Your task to perform on an android device: toggle sleep mode Image 0: 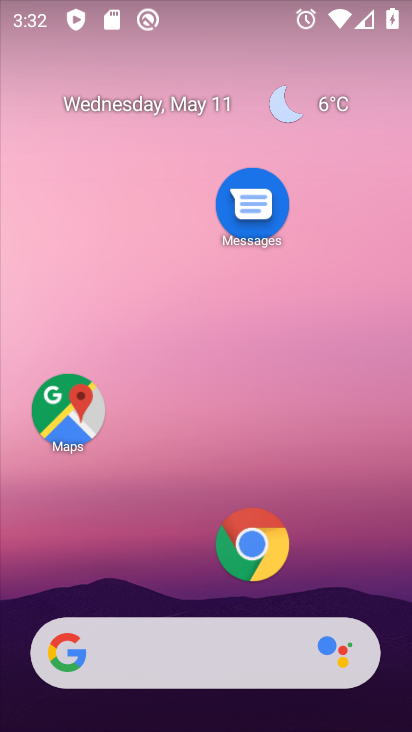
Step 0: drag from (185, 460) to (264, 47)
Your task to perform on an android device: toggle sleep mode Image 1: 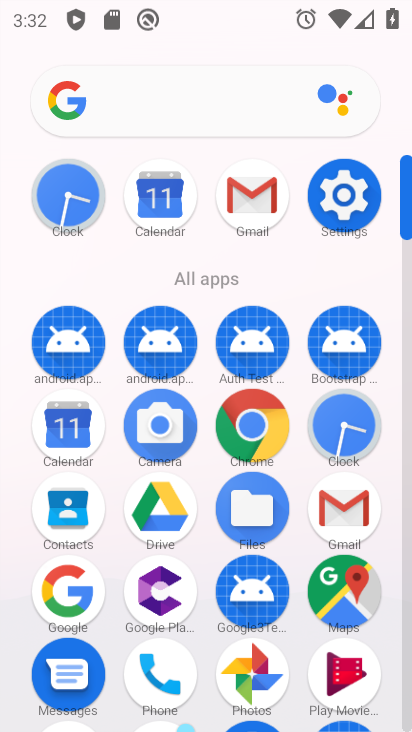
Step 1: click (345, 192)
Your task to perform on an android device: toggle sleep mode Image 2: 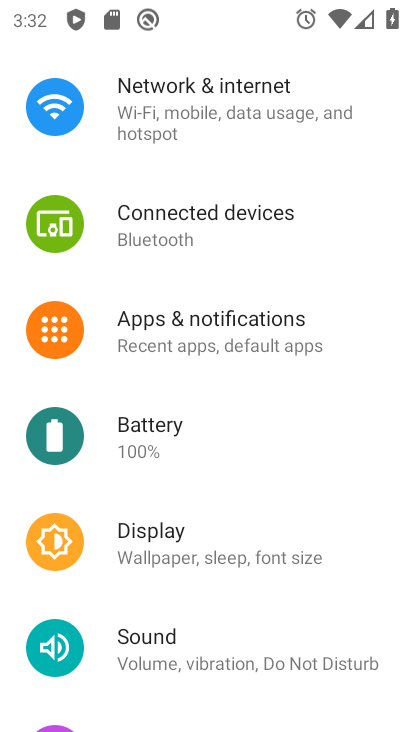
Step 2: drag from (201, 90) to (171, 631)
Your task to perform on an android device: toggle sleep mode Image 3: 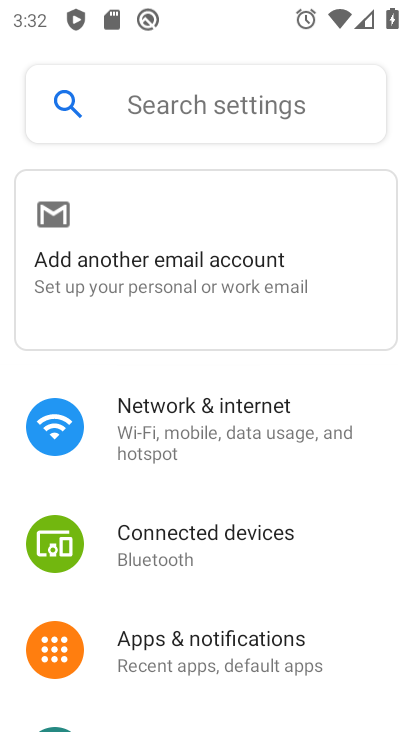
Step 3: click (170, 103)
Your task to perform on an android device: toggle sleep mode Image 4: 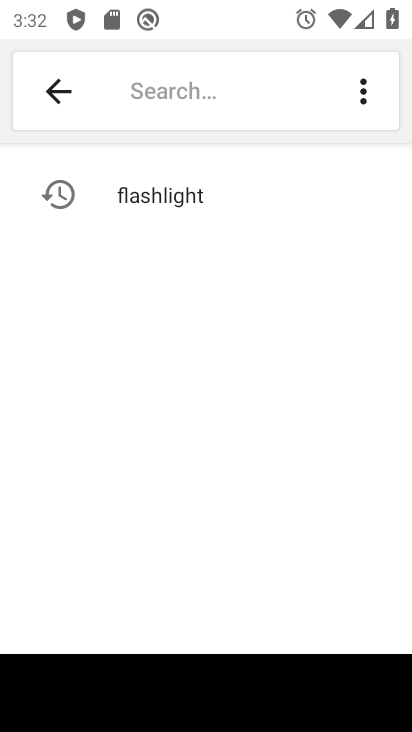
Step 4: type "sleep mode"
Your task to perform on an android device: toggle sleep mode Image 5: 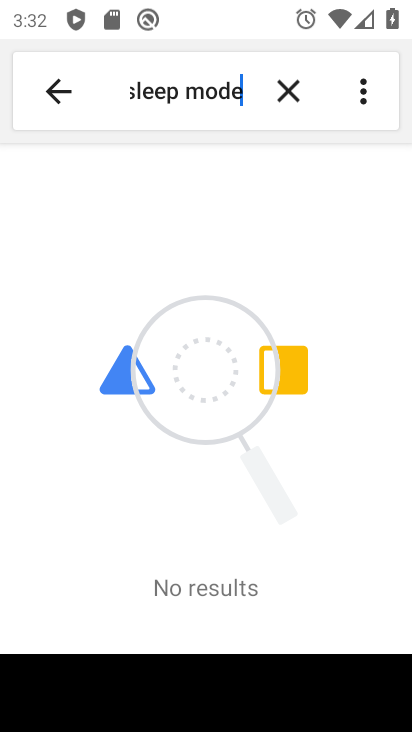
Step 5: task complete